Your task to perform on an android device: Open Chrome and go to settings Image 0: 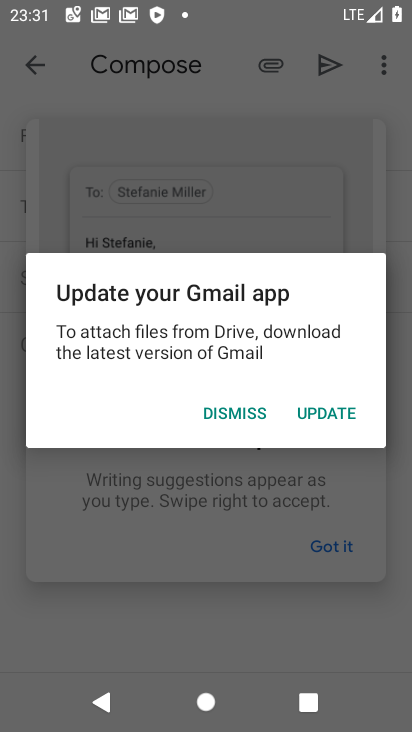
Step 0: press home button
Your task to perform on an android device: Open Chrome and go to settings Image 1: 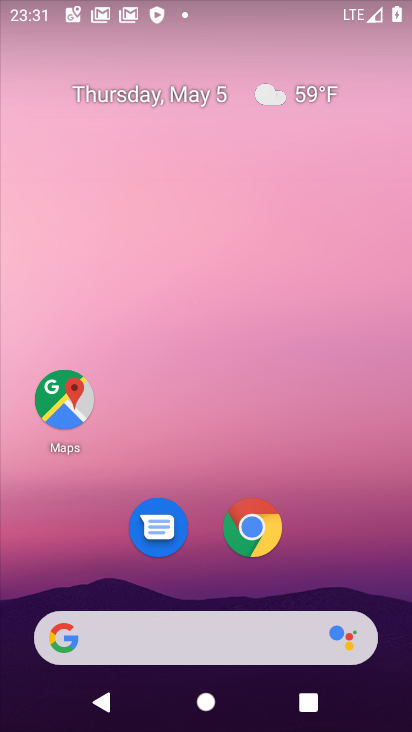
Step 1: click (244, 530)
Your task to perform on an android device: Open Chrome and go to settings Image 2: 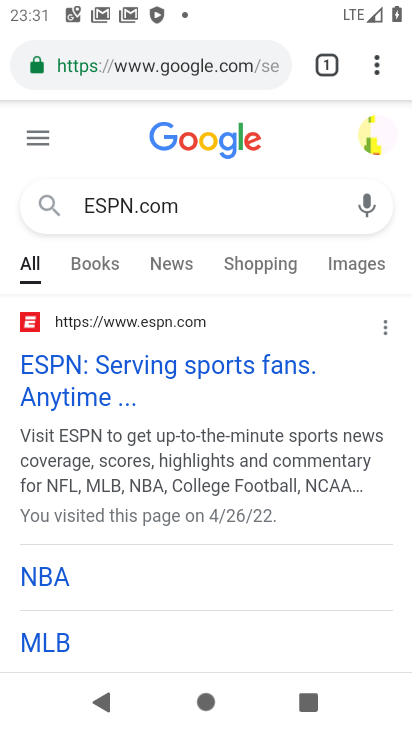
Step 2: click (368, 63)
Your task to perform on an android device: Open Chrome and go to settings Image 3: 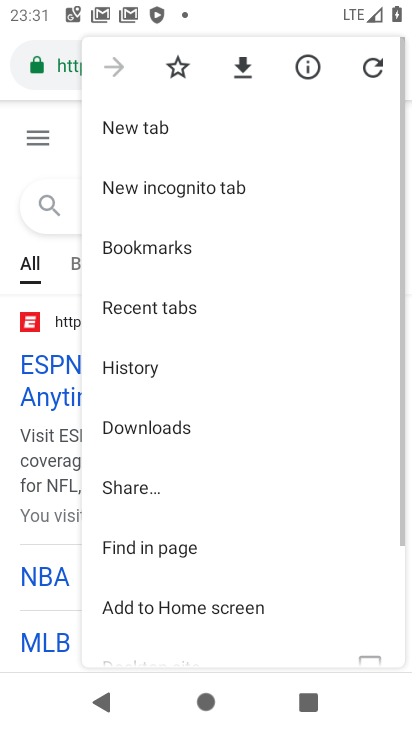
Step 3: drag from (160, 589) to (174, 256)
Your task to perform on an android device: Open Chrome and go to settings Image 4: 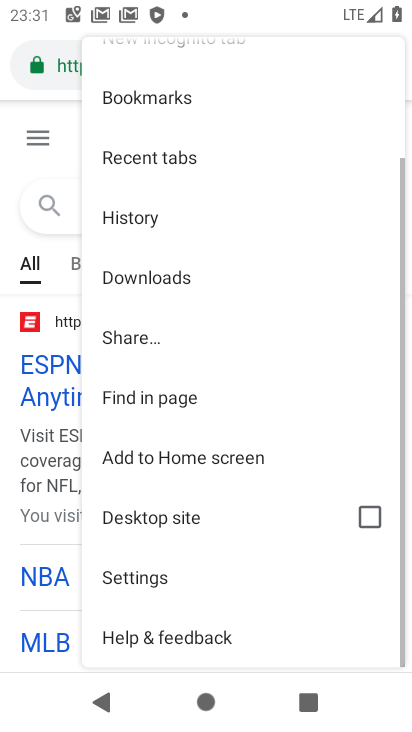
Step 4: click (136, 568)
Your task to perform on an android device: Open Chrome and go to settings Image 5: 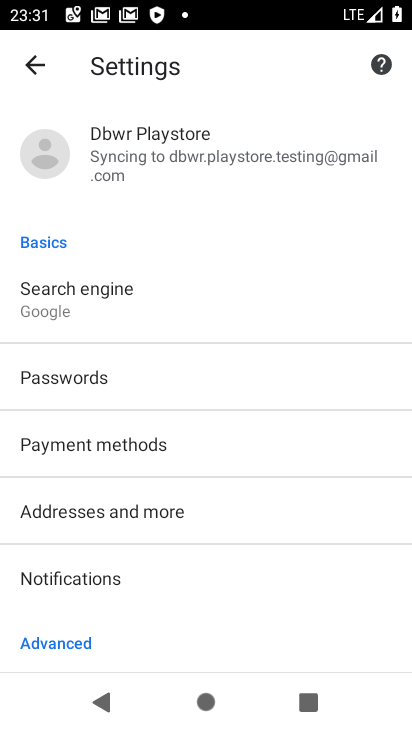
Step 5: task complete